Your task to perform on an android device: find photos in the google photos app Image 0: 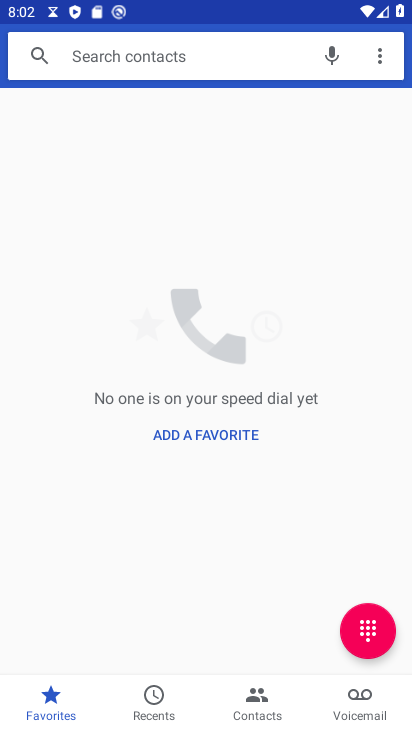
Step 0: press home button
Your task to perform on an android device: find photos in the google photos app Image 1: 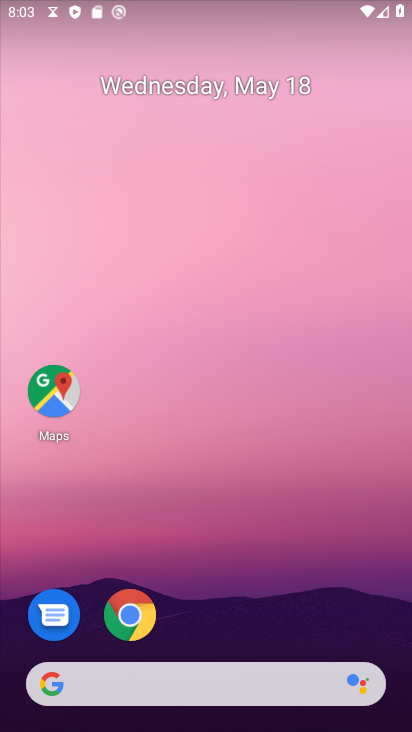
Step 1: drag from (270, 580) to (280, 178)
Your task to perform on an android device: find photos in the google photos app Image 2: 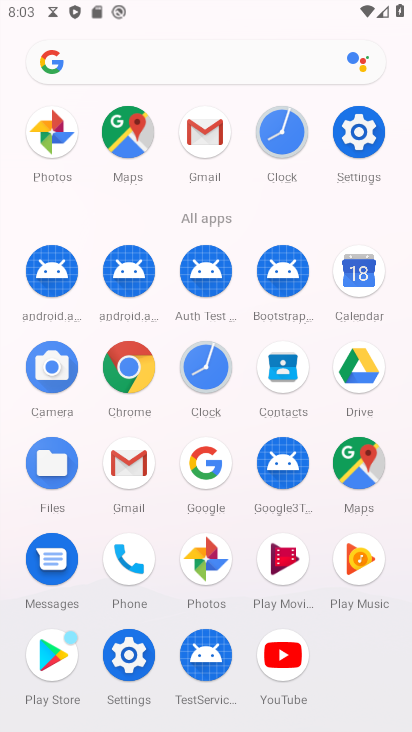
Step 2: click (216, 565)
Your task to perform on an android device: find photos in the google photos app Image 3: 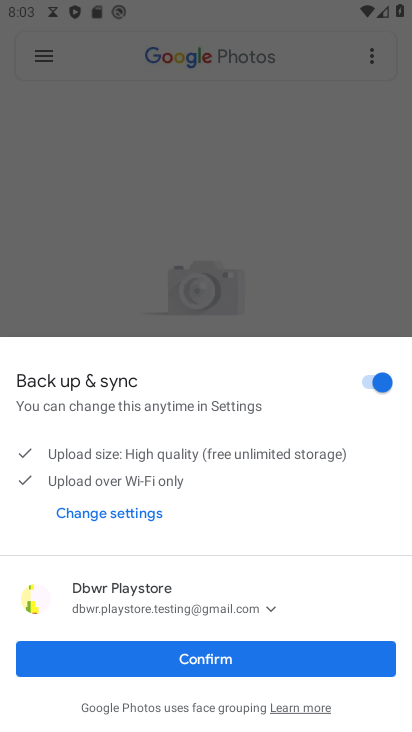
Step 3: click (181, 657)
Your task to perform on an android device: find photos in the google photos app Image 4: 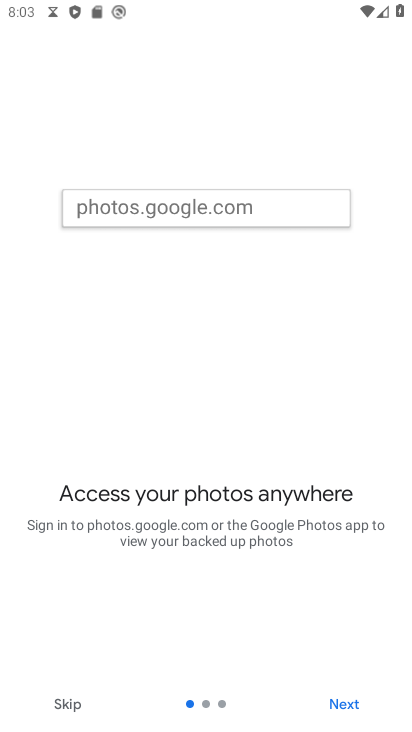
Step 4: click (356, 698)
Your task to perform on an android device: find photos in the google photos app Image 5: 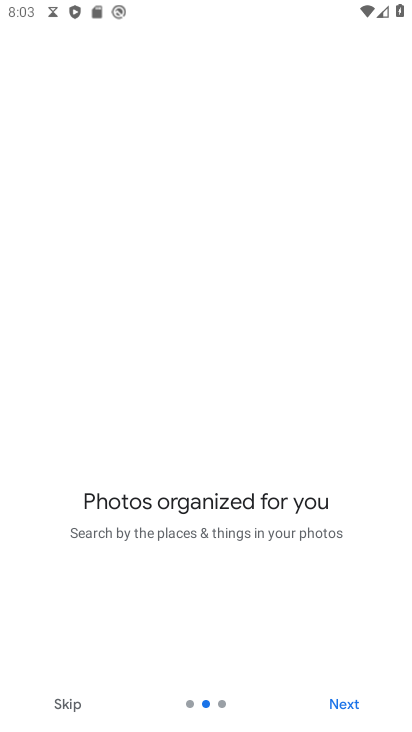
Step 5: click (355, 698)
Your task to perform on an android device: find photos in the google photos app Image 6: 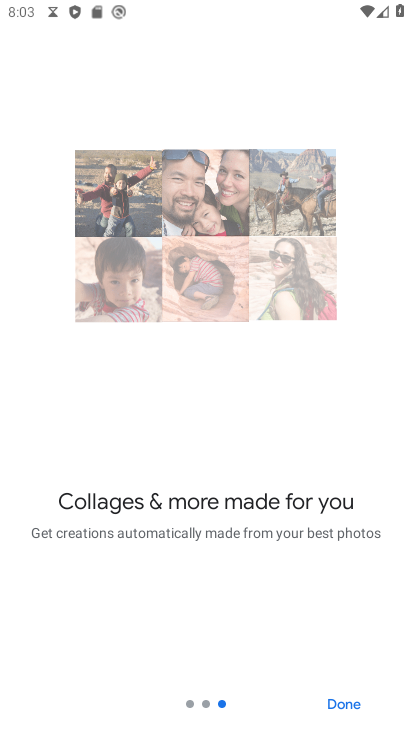
Step 6: click (342, 704)
Your task to perform on an android device: find photos in the google photos app Image 7: 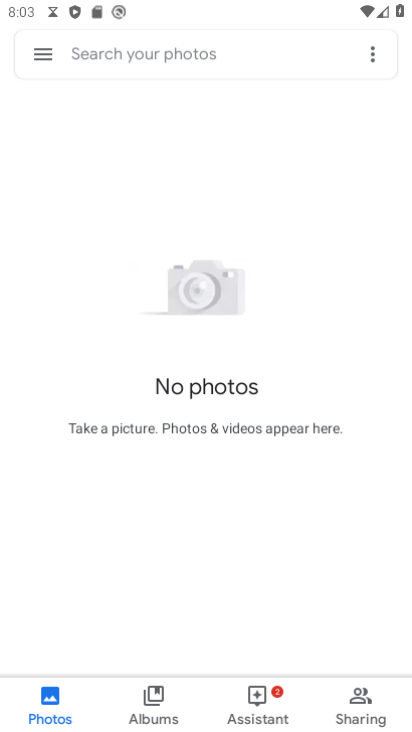
Step 7: click (342, 704)
Your task to perform on an android device: find photos in the google photos app Image 8: 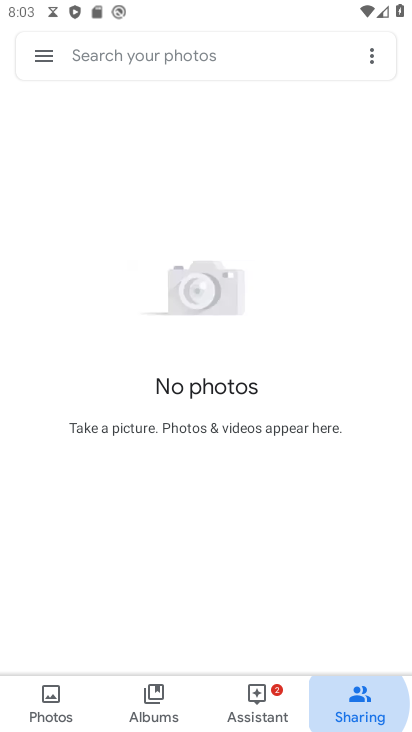
Step 8: click (342, 704)
Your task to perform on an android device: find photos in the google photos app Image 9: 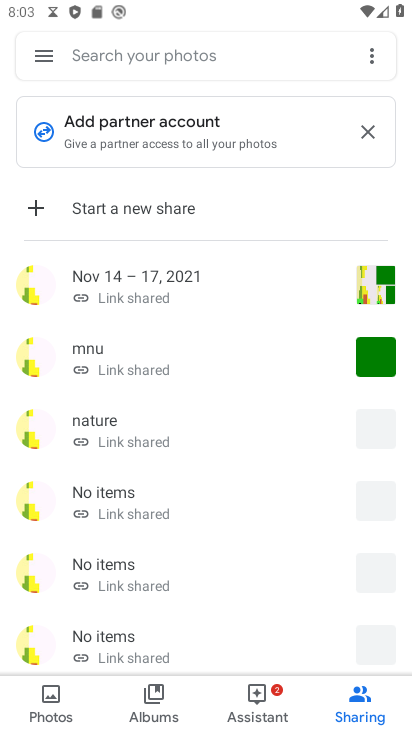
Step 9: click (48, 689)
Your task to perform on an android device: find photos in the google photos app Image 10: 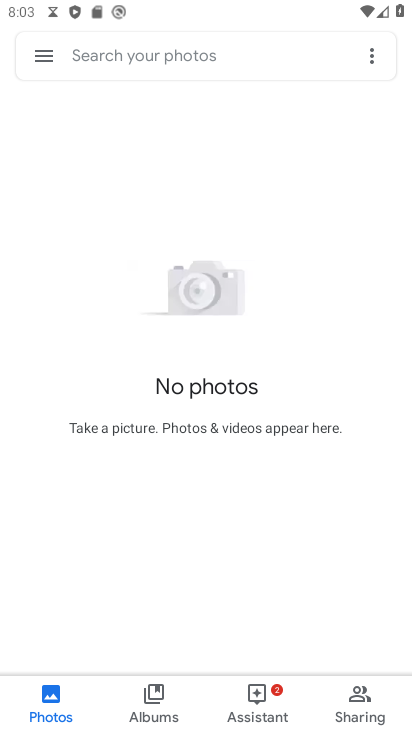
Step 10: task complete